Your task to perform on an android device: turn on sleep mode Image 0: 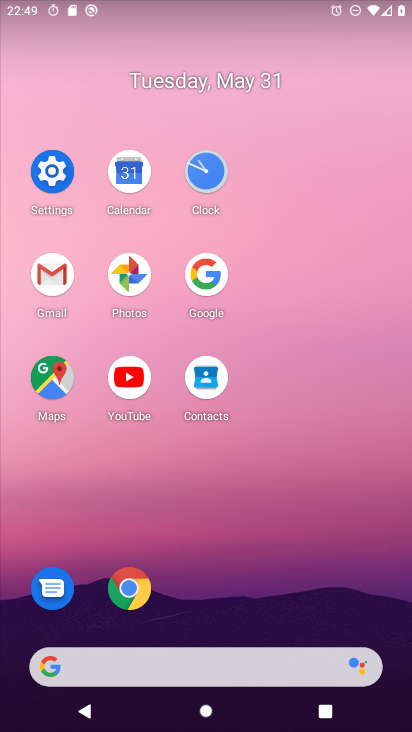
Step 0: click (53, 181)
Your task to perform on an android device: turn on sleep mode Image 1: 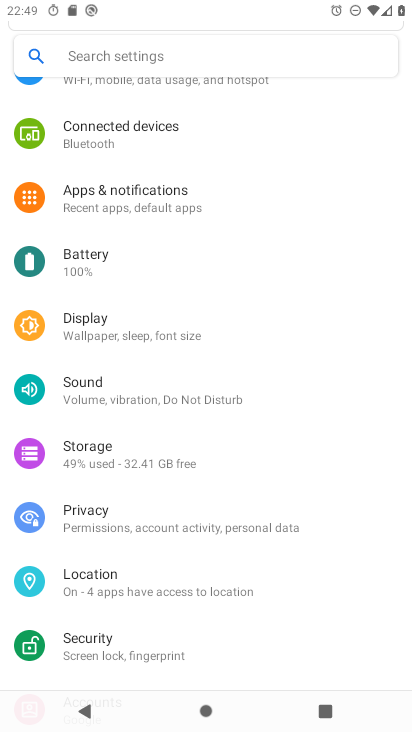
Step 1: drag from (335, 217) to (266, 591)
Your task to perform on an android device: turn on sleep mode Image 2: 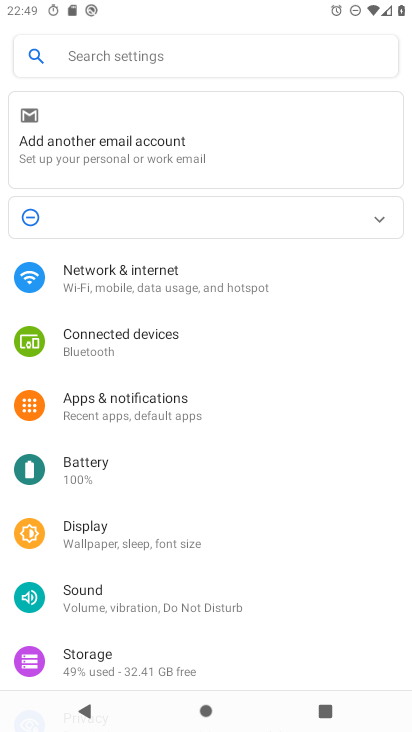
Step 2: click (229, 536)
Your task to perform on an android device: turn on sleep mode Image 3: 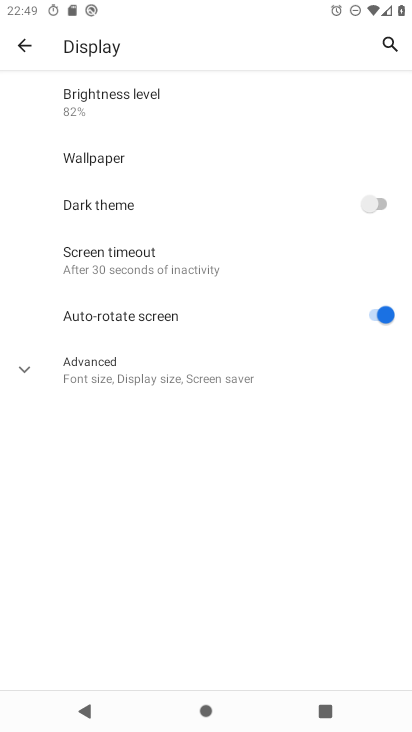
Step 3: click (242, 255)
Your task to perform on an android device: turn on sleep mode Image 4: 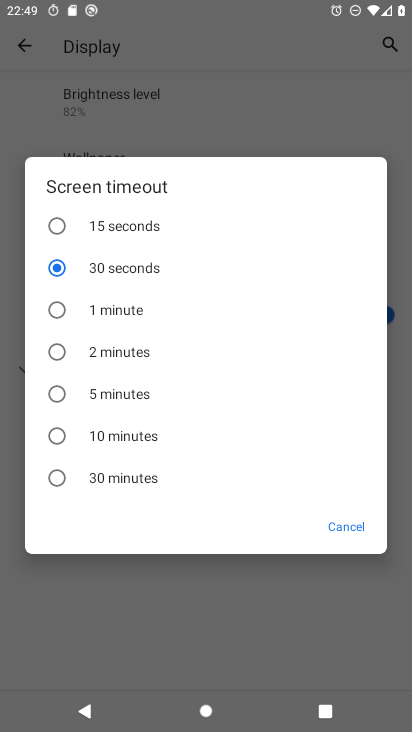
Step 4: click (72, 312)
Your task to perform on an android device: turn on sleep mode Image 5: 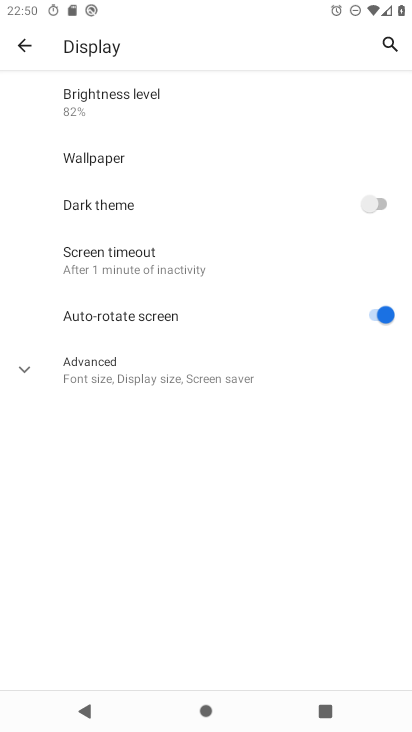
Step 5: task complete